Your task to perform on an android device: Turn off the flashlight Image 0: 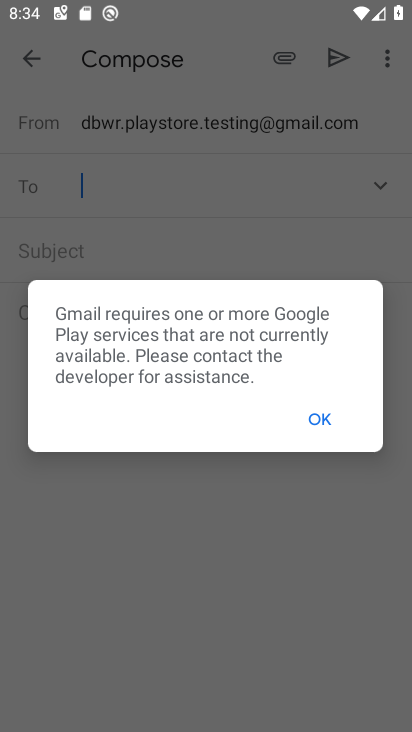
Step 0: press home button
Your task to perform on an android device: Turn off the flashlight Image 1: 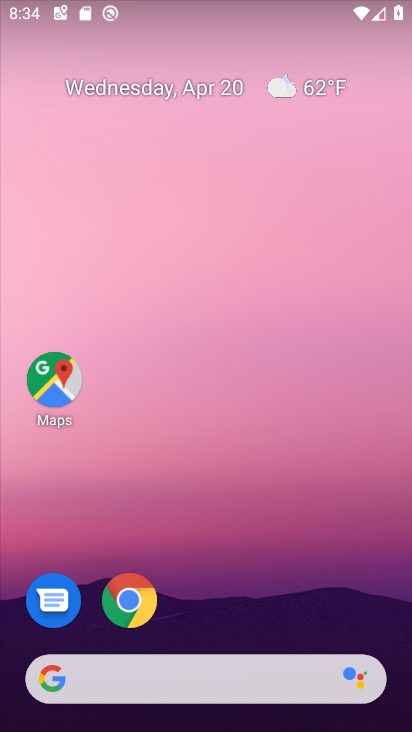
Step 1: task complete